Your task to perform on an android device: uninstall "eBay: The shopping marketplace" Image 0: 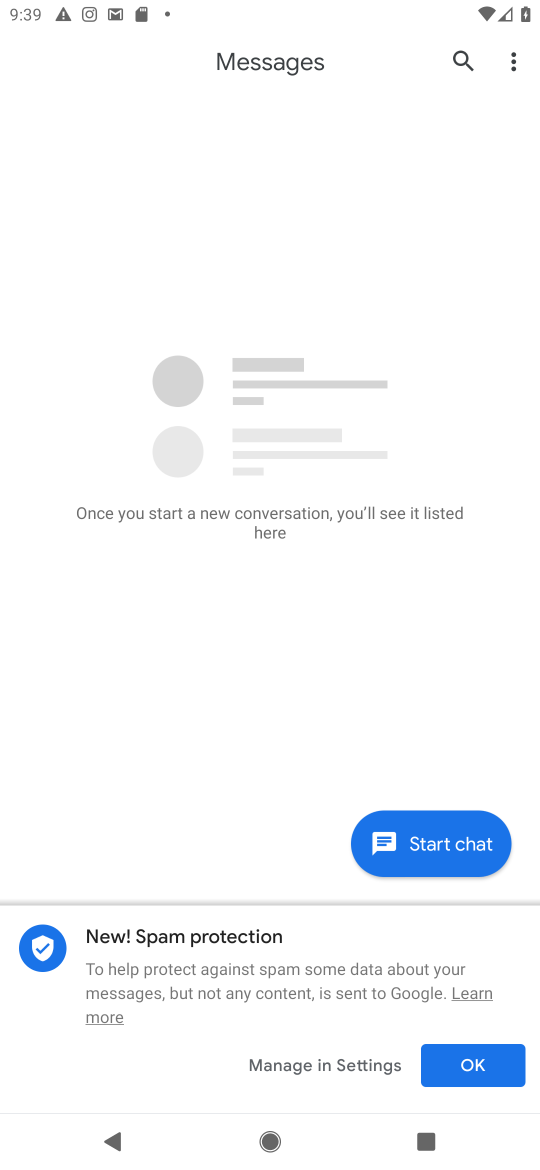
Step 0: press home button
Your task to perform on an android device: uninstall "eBay: The shopping marketplace" Image 1: 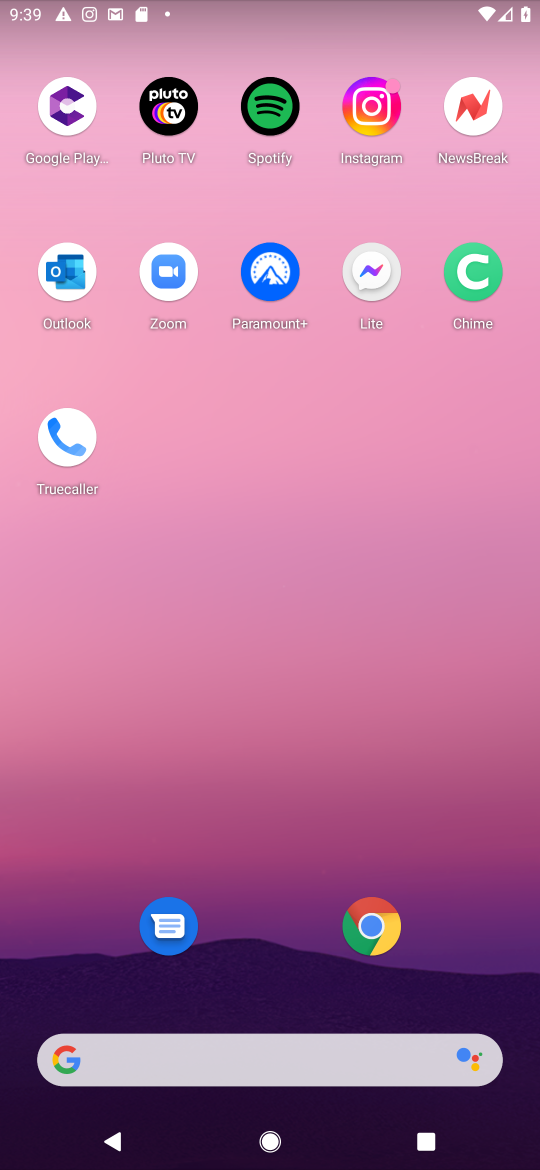
Step 1: drag from (244, 995) to (297, 143)
Your task to perform on an android device: uninstall "eBay: The shopping marketplace" Image 2: 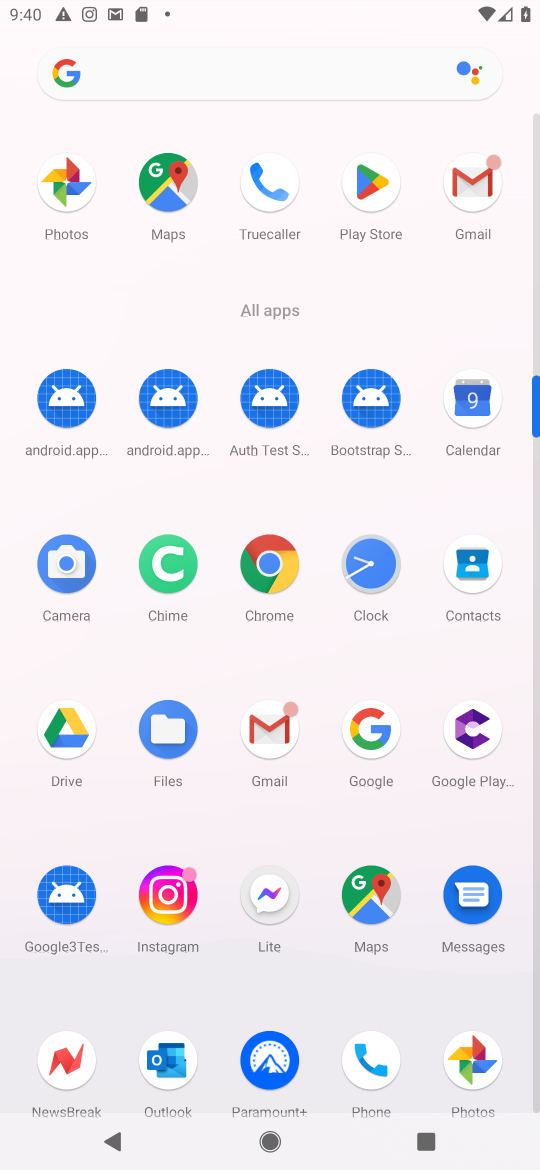
Step 2: click (371, 195)
Your task to perform on an android device: uninstall "eBay: The shopping marketplace" Image 3: 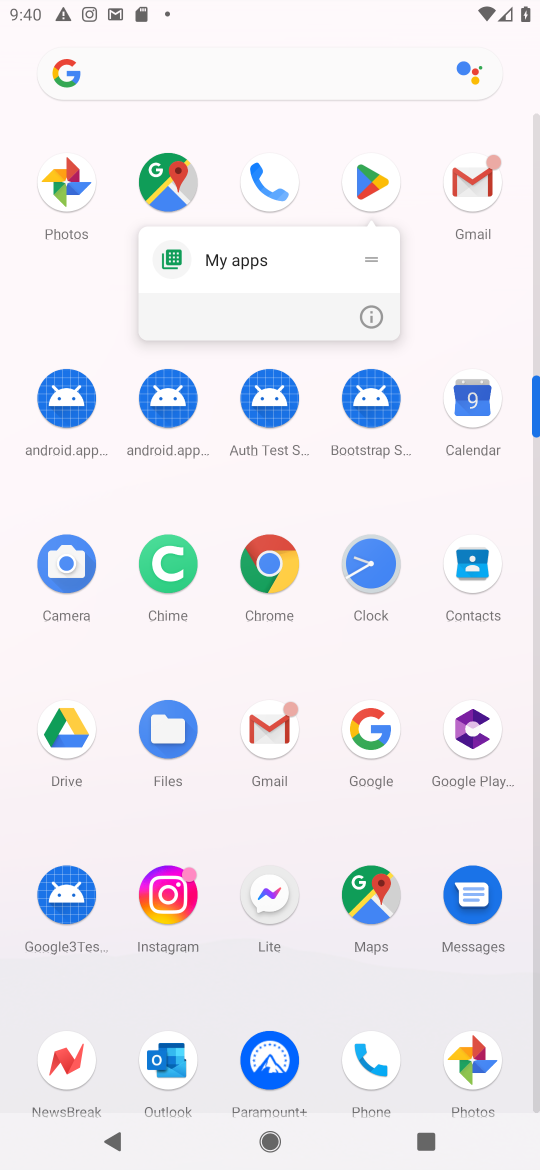
Step 3: click (371, 195)
Your task to perform on an android device: uninstall "eBay: The shopping marketplace" Image 4: 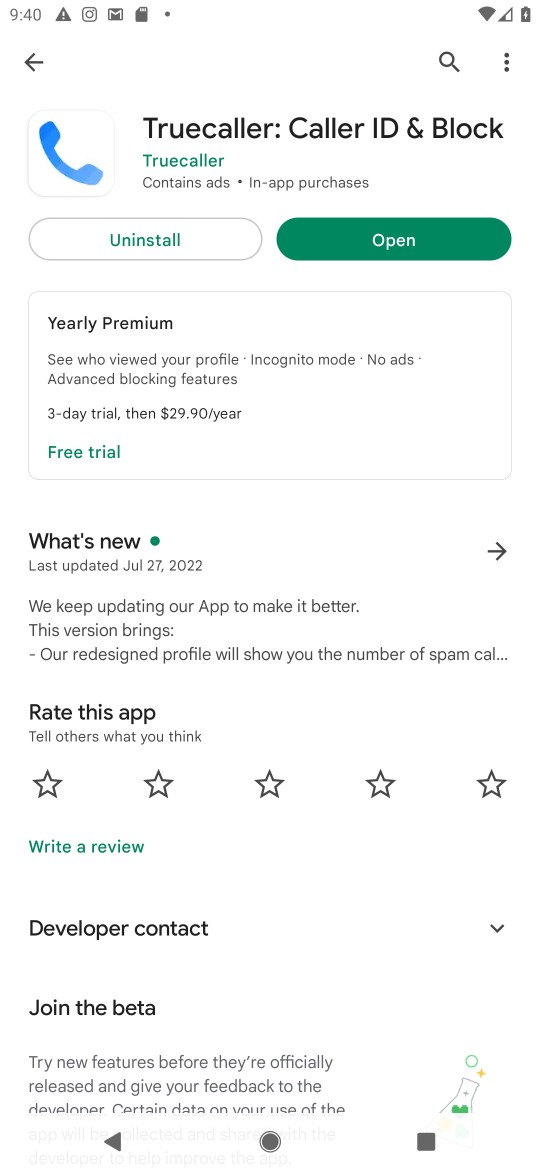
Step 4: click (39, 61)
Your task to perform on an android device: uninstall "eBay: The shopping marketplace" Image 5: 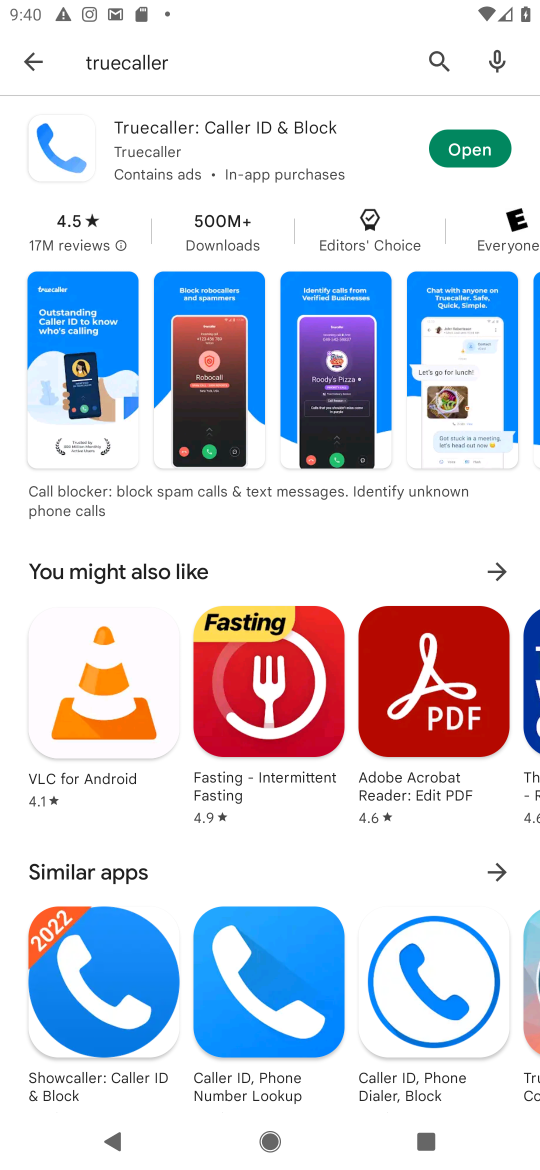
Step 5: click (193, 58)
Your task to perform on an android device: uninstall "eBay: The shopping marketplace" Image 6: 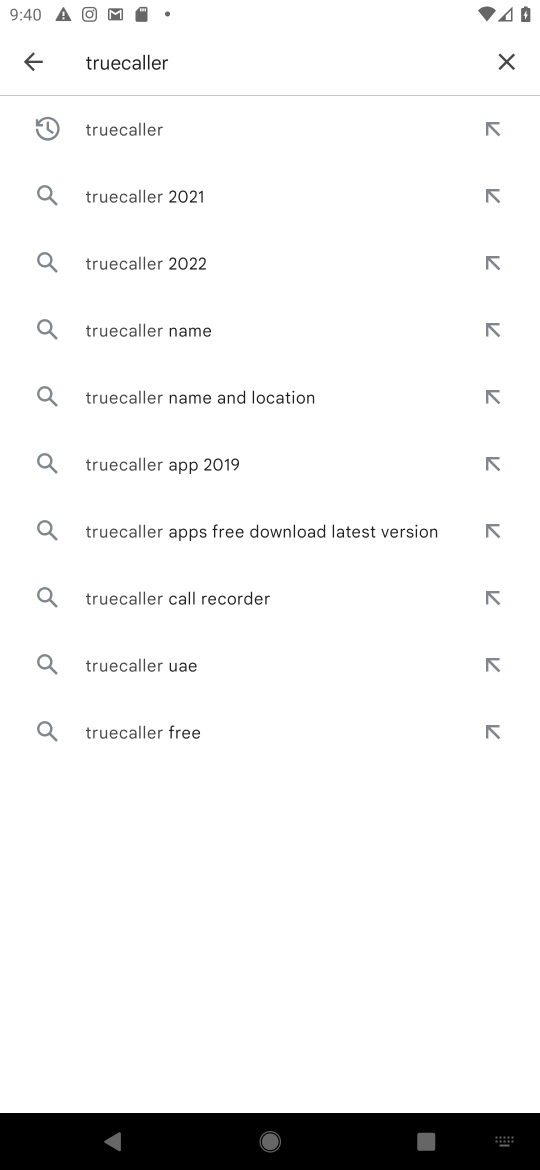
Step 6: click (500, 58)
Your task to perform on an android device: uninstall "eBay: The shopping marketplace" Image 7: 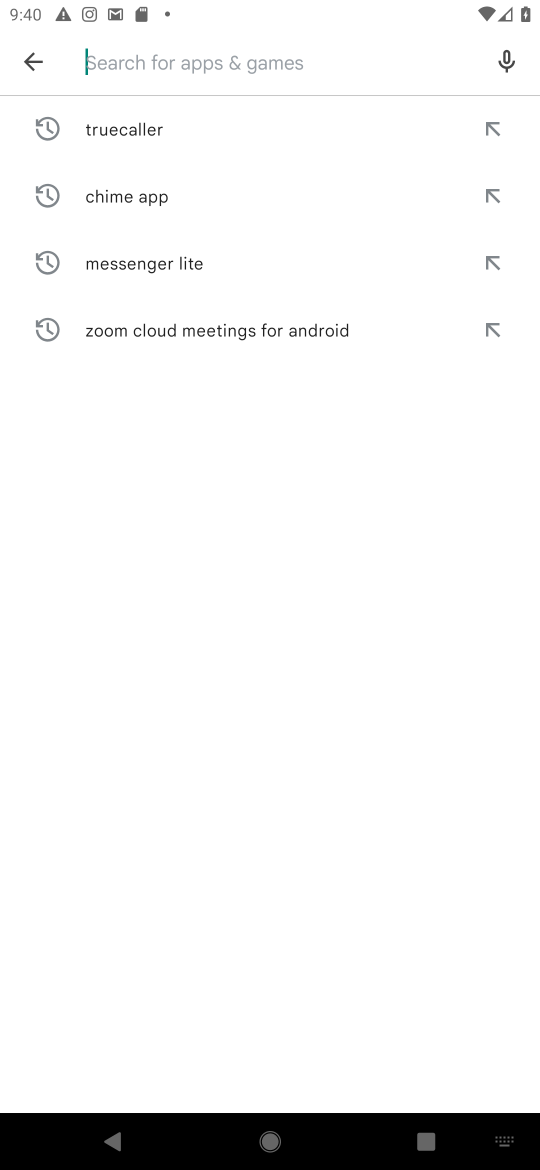
Step 7: type "eBay"
Your task to perform on an android device: uninstall "eBay: The shopping marketplace" Image 8: 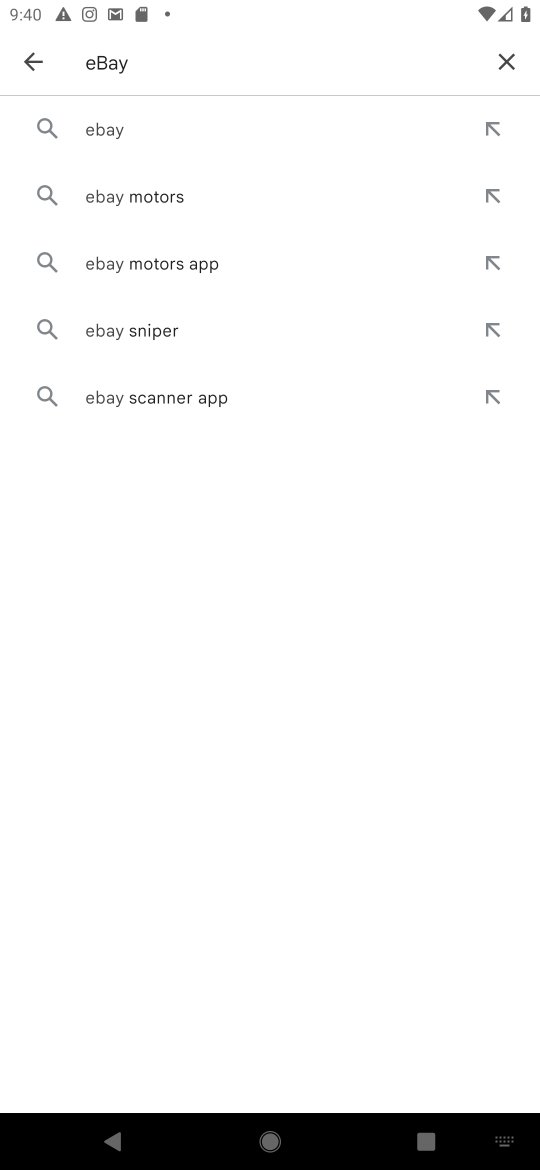
Step 8: click (141, 142)
Your task to perform on an android device: uninstall "eBay: The shopping marketplace" Image 9: 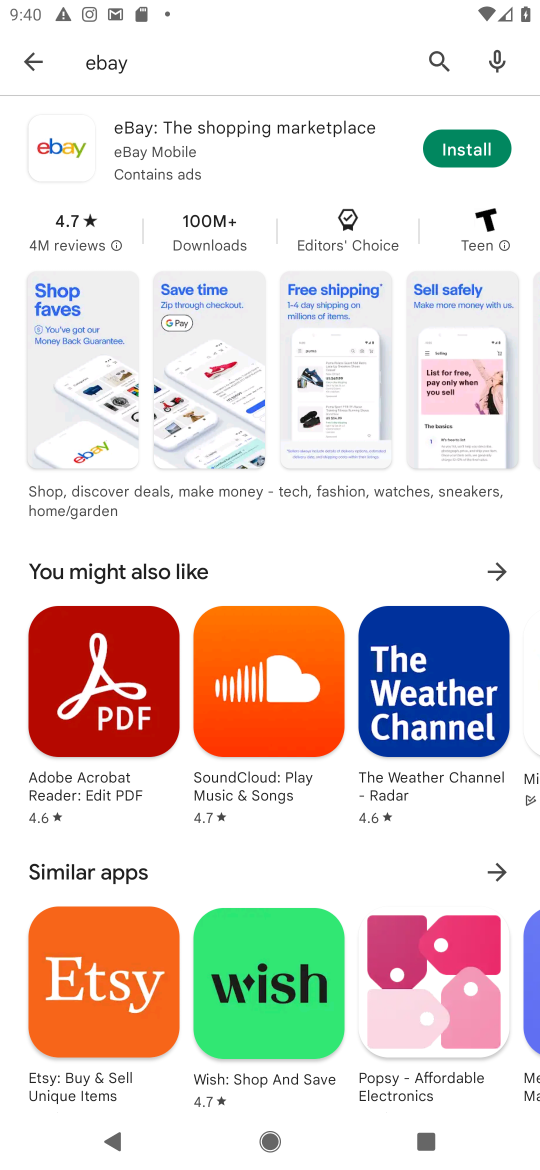
Step 9: task complete